Your task to perform on an android device: Open Youtube and go to "Your channel" Image 0: 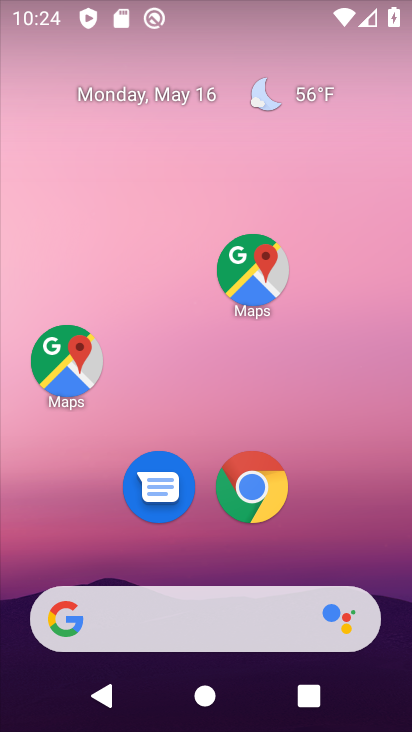
Step 0: click (217, 58)
Your task to perform on an android device: Open Youtube and go to "Your channel" Image 1: 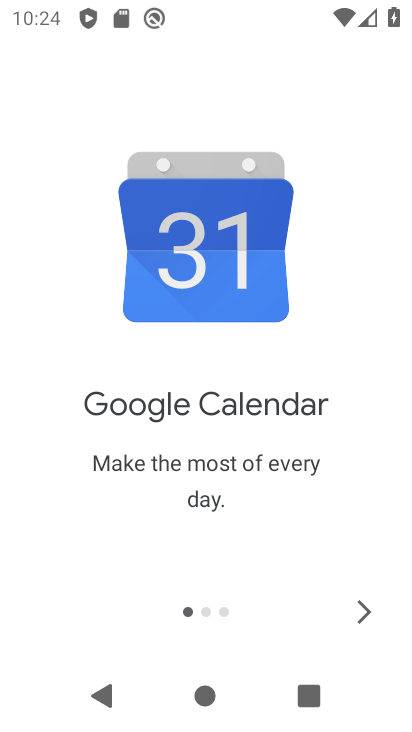
Step 1: press home button
Your task to perform on an android device: Open Youtube and go to "Your channel" Image 2: 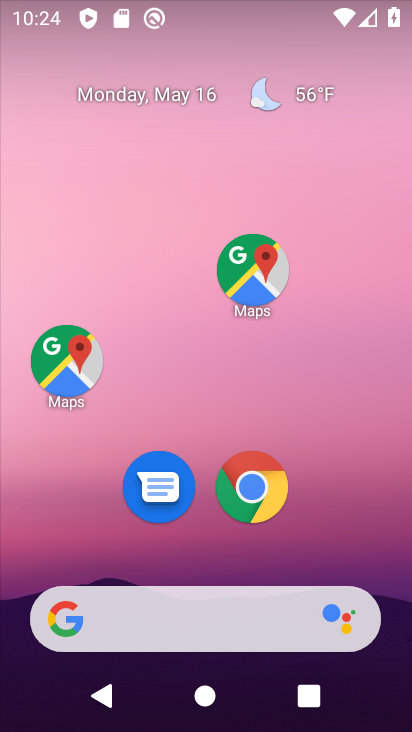
Step 2: drag from (297, 468) to (294, 74)
Your task to perform on an android device: Open Youtube and go to "Your channel" Image 3: 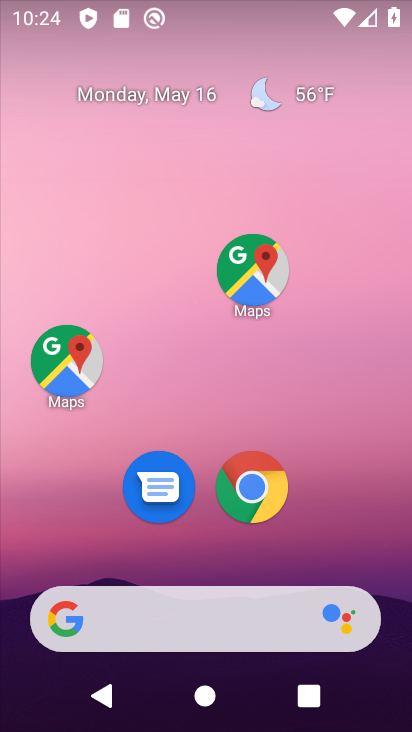
Step 3: drag from (295, 519) to (265, 7)
Your task to perform on an android device: Open Youtube and go to "Your channel" Image 4: 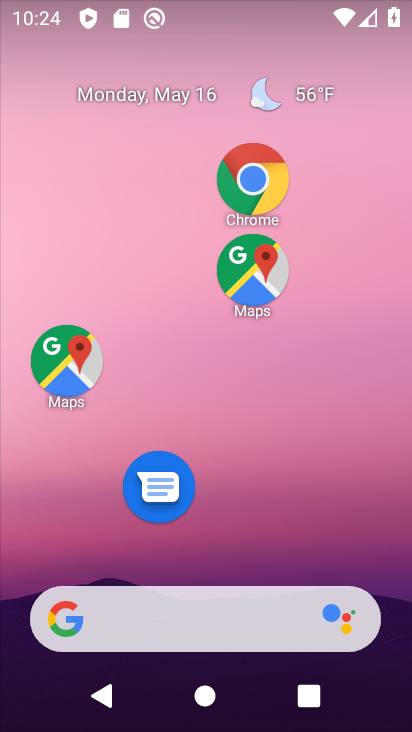
Step 4: drag from (237, 524) to (249, 9)
Your task to perform on an android device: Open Youtube and go to "Your channel" Image 5: 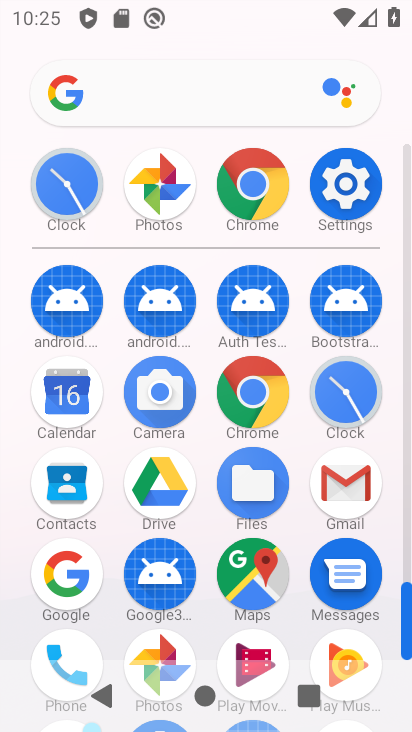
Step 5: drag from (259, 639) to (296, 211)
Your task to perform on an android device: Open Youtube and go to "Your channel" Image 6: 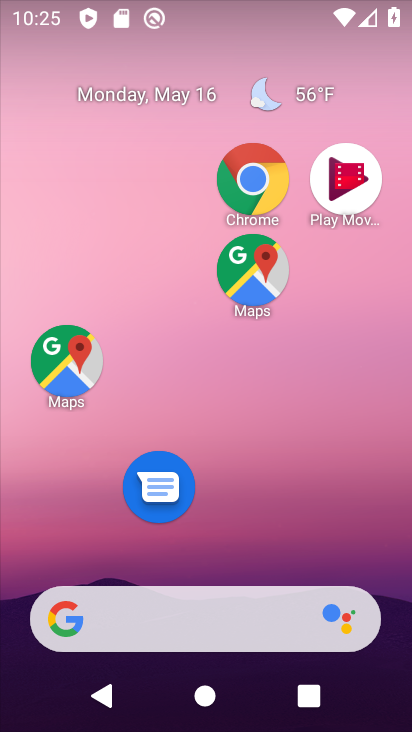
Step 6: drag from (237, 410) to (260, 9)
Your task to perform on an android device: Open Youtube and go to "Your channel" Image 7: 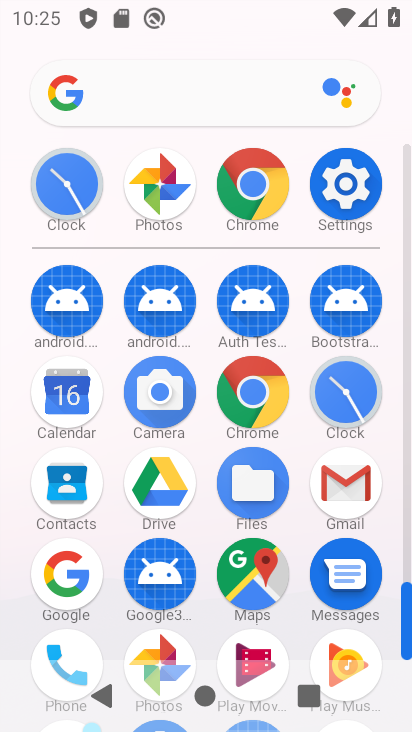
Step 7: drag from (203, 643) to (245, 542)
Your task to perform on an android device: Open Youtube and go to "Your channel" Image 8: 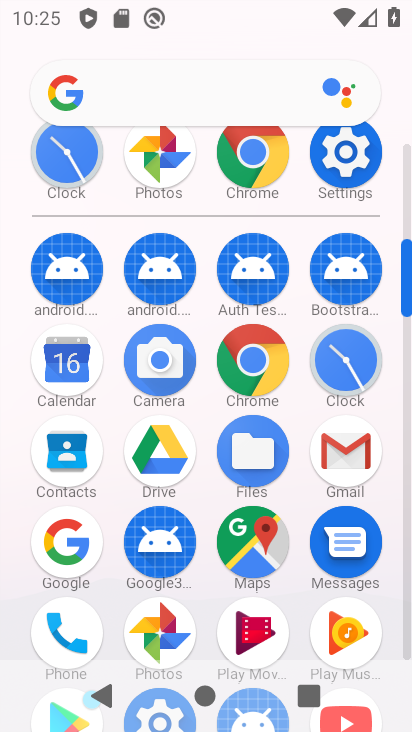
Step 8: drag from (279, 674) to (335, 395)
Your task to perform on an android device: Open Youtube and go to "Your channel" Image 9: 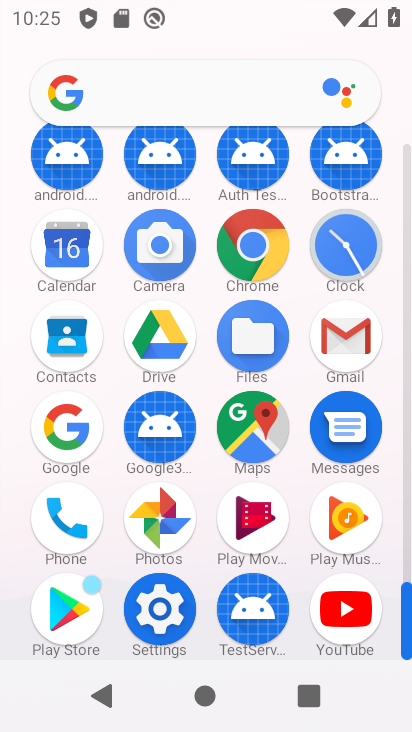
Step 9: click (348, 605)
Your task to perform on an android device: Open Youtube and go to "Your channel" Image 10: 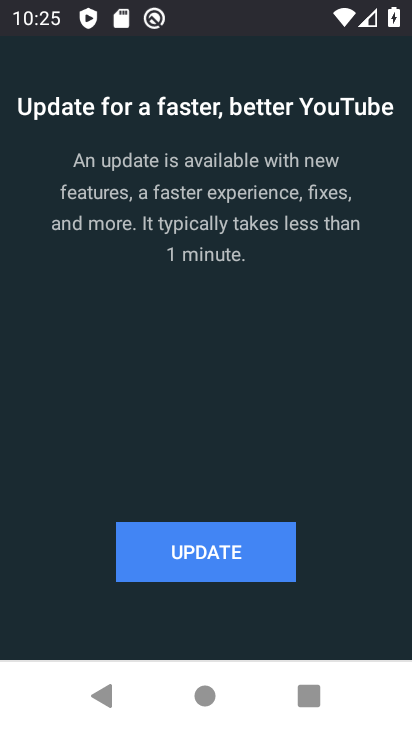
Step 10: click (197, 549)
Your task to perform on an android device: Open Youtube and go to "Your channel" Image 11: 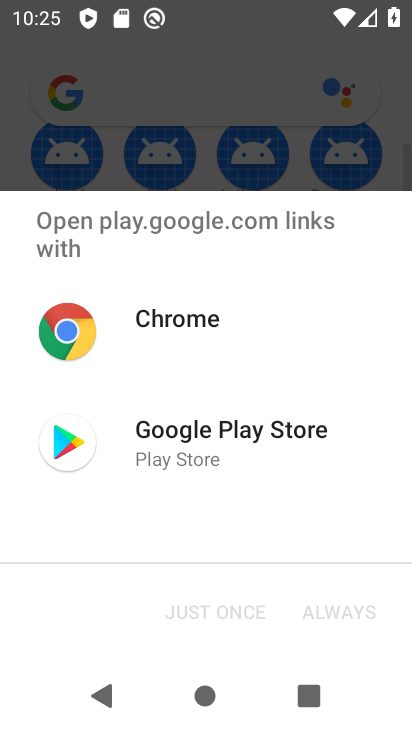
Step 11: click (165, 441)
Your task to perform on an android device: Open Youtube and go to "Your channel" Image 12: 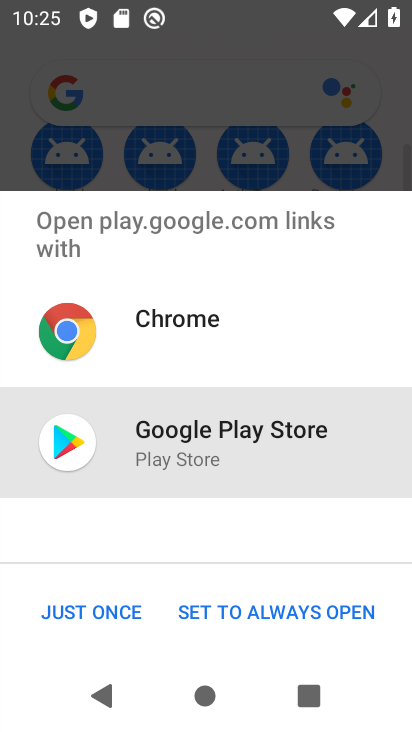
Step 12: click (276, 618)
Your task to perform on an android device: Open Youtube and go to "Your channel" Image 13: 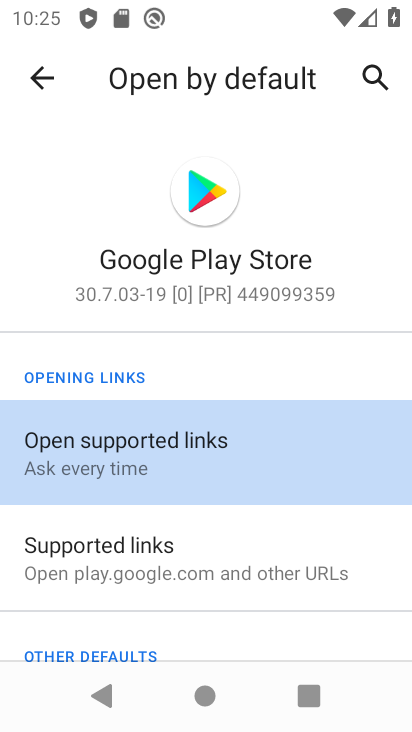
Step 13: click (133, 437)
Your task to perform on an android device: Open Youtube and go to "Your channel" Image 14: 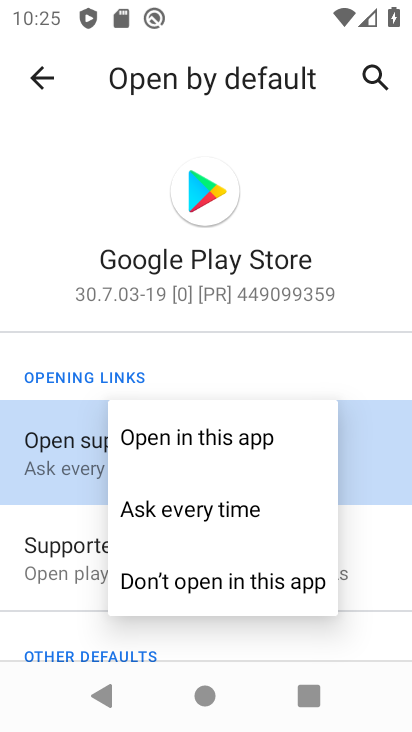
Step 14: click (186, 438)
Your task to perform on an android device: Open Youtube and go to "Your channel" Image 15: 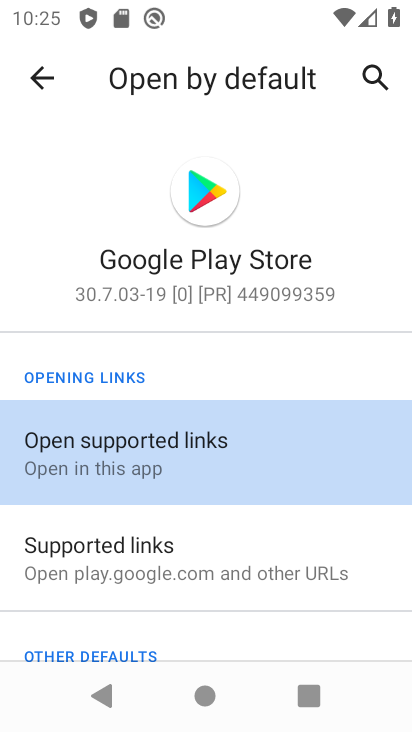
Step 15: click (47, 85)
Your task to perform on an android device: Open Youtube and go to "Your channel" Image 16: 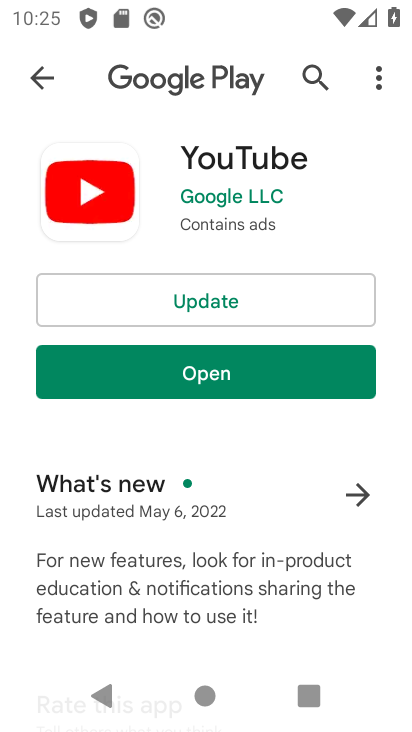
Step 16: click (213, 319)
Your task to perform on an android device: Open Youtube and go to "Your channel" Image 17: 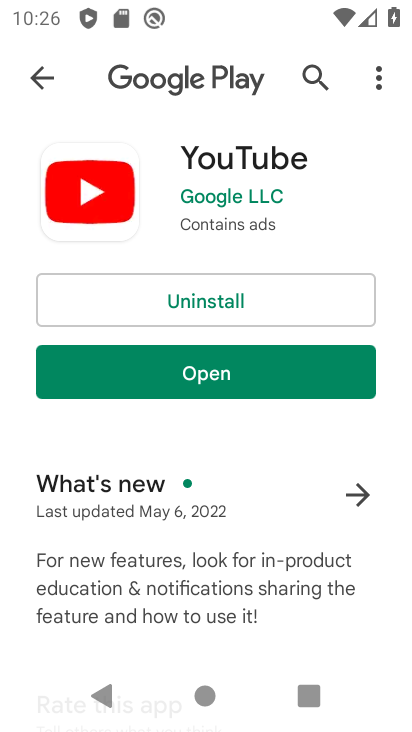
Step 17: click (198, 385)
Your task to perform on an android device: Open Youtube and go to "Your channel" Image 18: 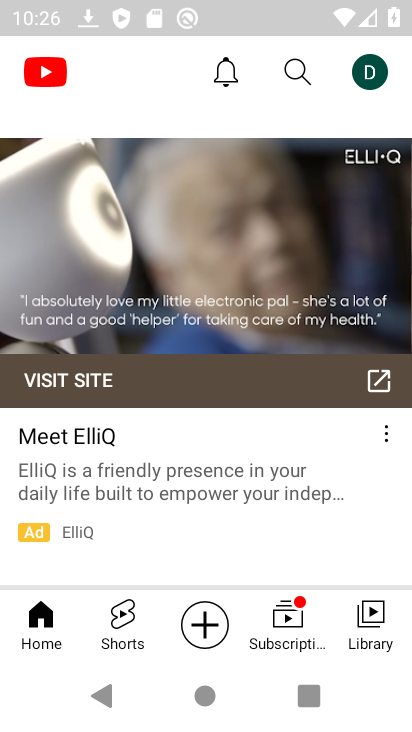
Step 18: click (391, 82)
Your task to perform on an android device: Open Youtube and go to "Your channel" Image 19: 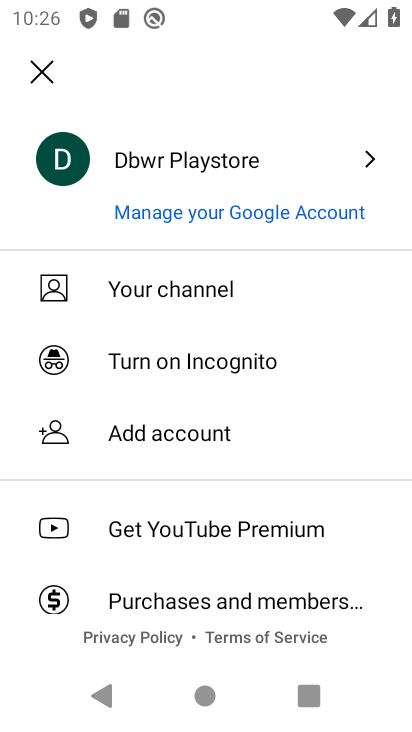
Step 19: click (164, 288)
Your task to perform on an android device: Open Youtube and go to "Your channel" Image 20: 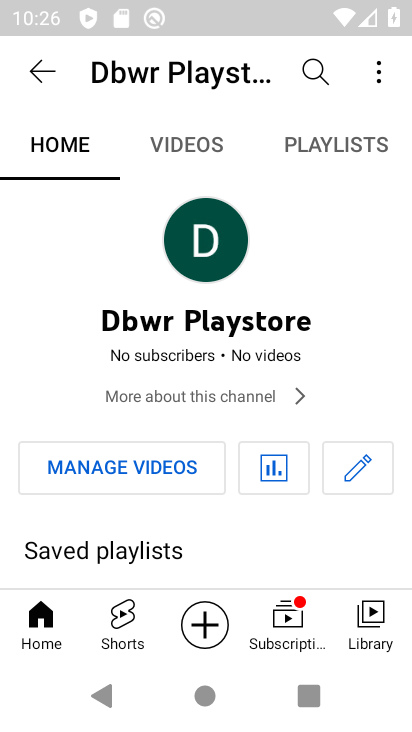
Step 20: task complete